Your task to perform on an android device: change alarm snooze length Image 0: 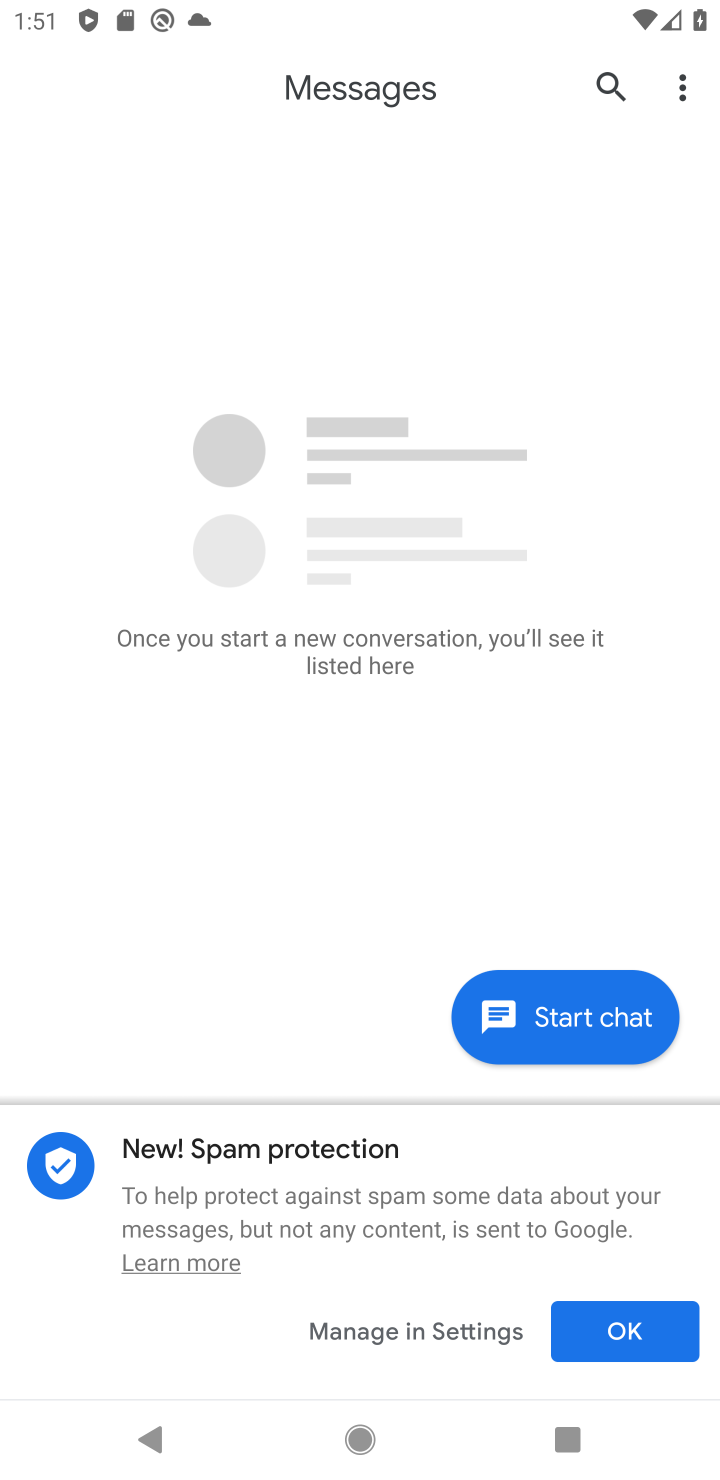
Step 0: press home button
Your task to perform on an android device: change alarm snooze length Image 1: 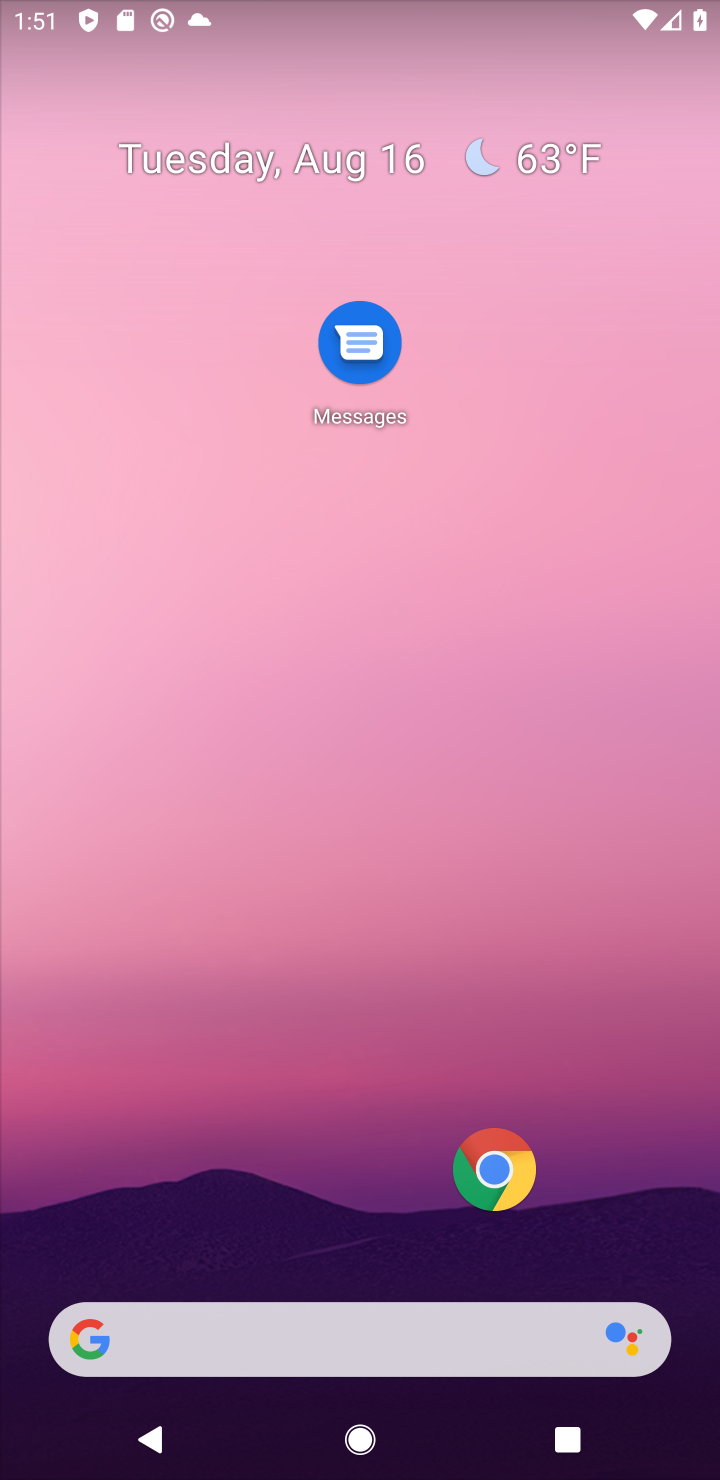
Step 1: drag from (267, 924) to (310, 803)
Your task to perform on an android device: change alarm snooze length Image 2: 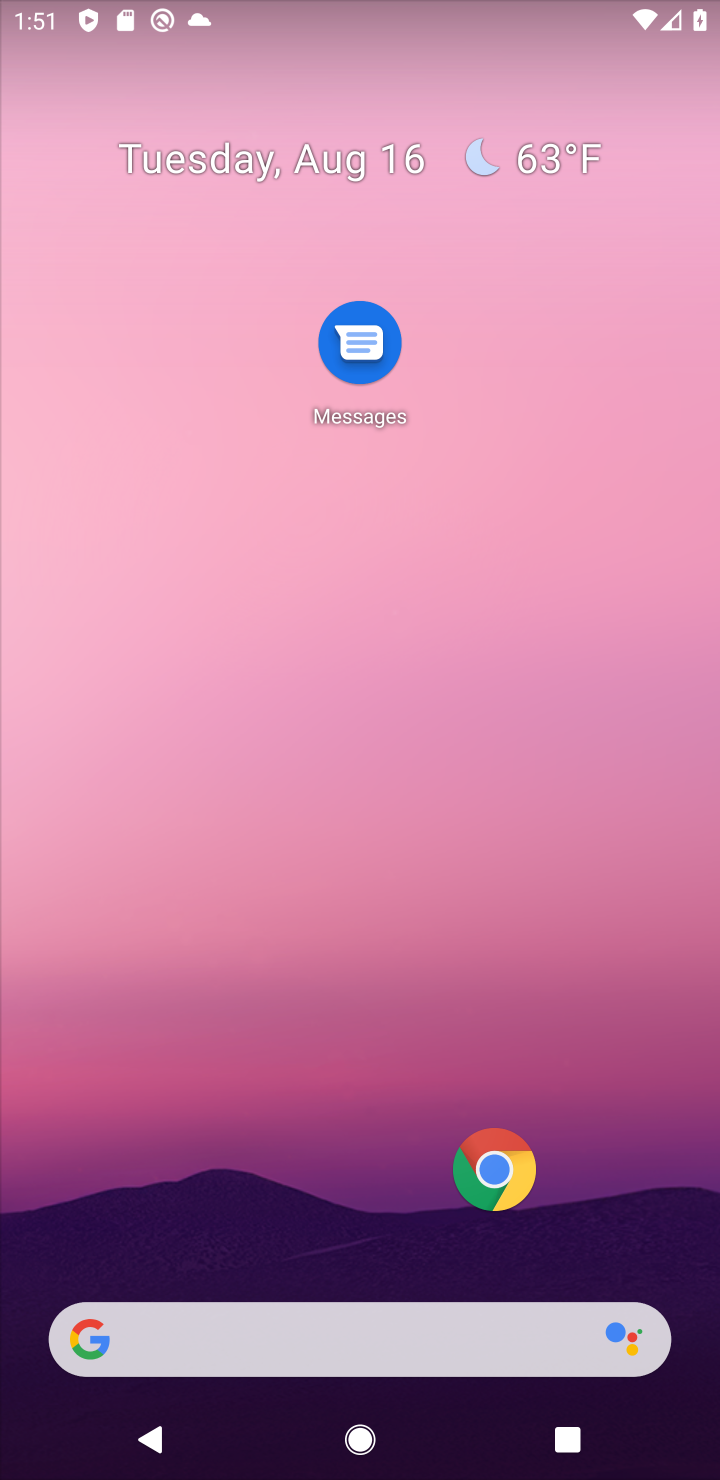
Step 2: drag from (93, 1462) to (265, 803)
Your task to perform on an android device: change alarm snooze length Image 3: 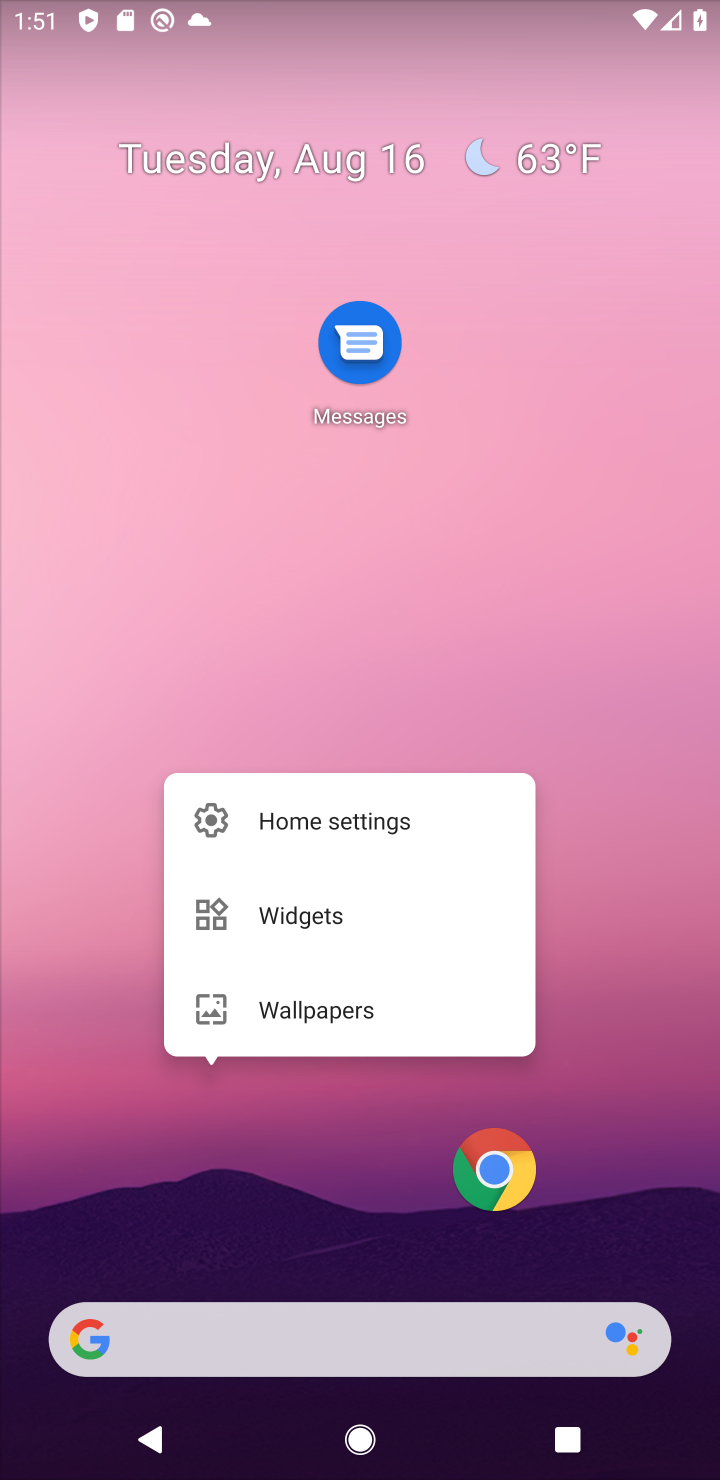
Step 3: click (55, 1457)
Your task to perform on an android device: change alarm snooze length Image 4: 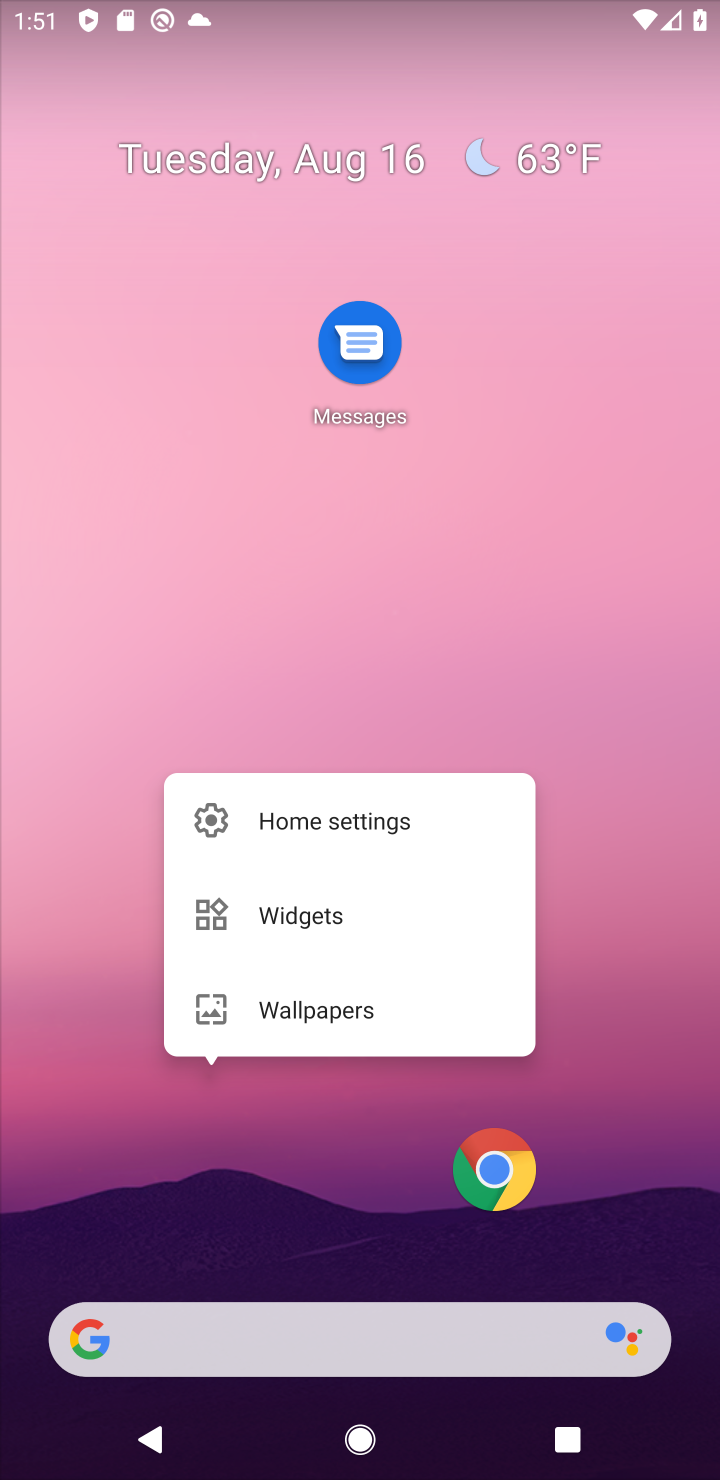
Step 4: task complete